Your task to perform on an android device: Add "razer blackwidow" to the cart on target, then select checkout. Image 0: 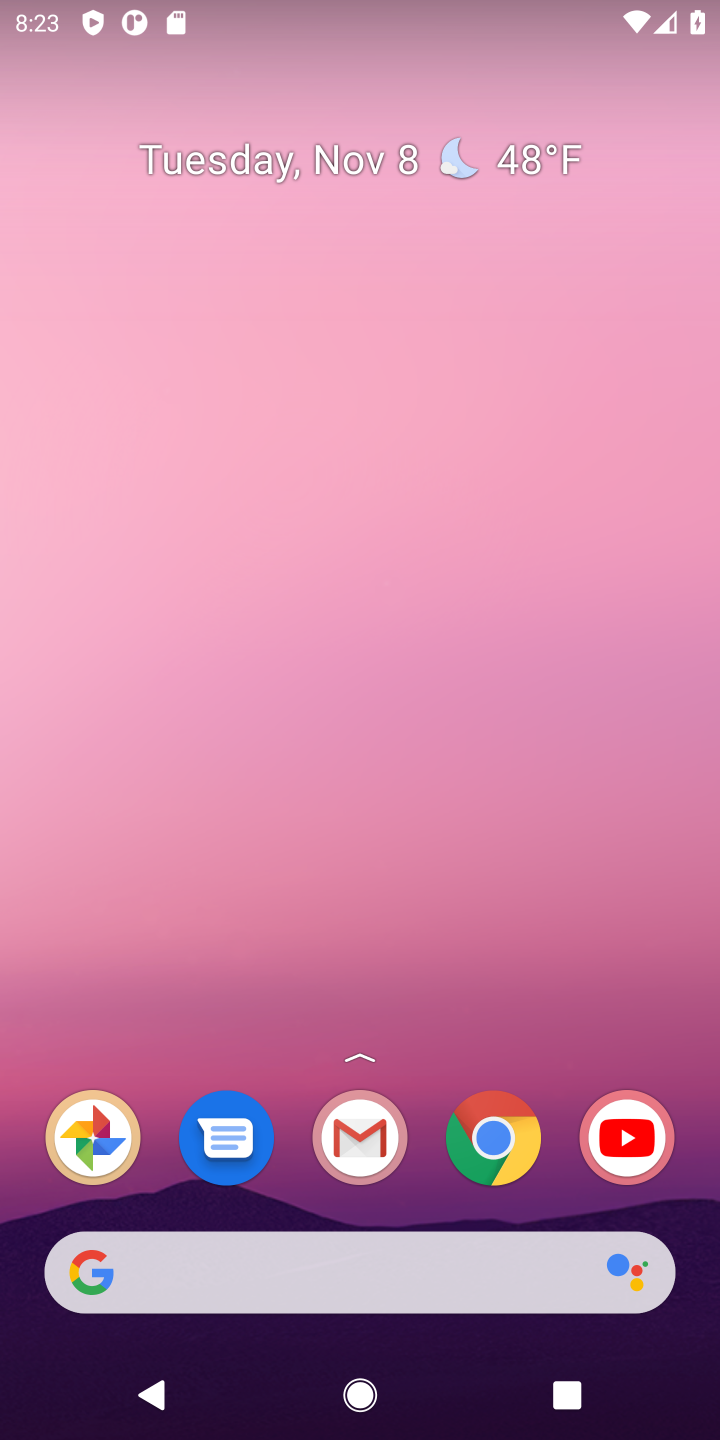
Step 0: click (491, 1116)
Your task to perform on an android device: Add "razer blackwidow" to the cart on target, then select checkout. Image 1: 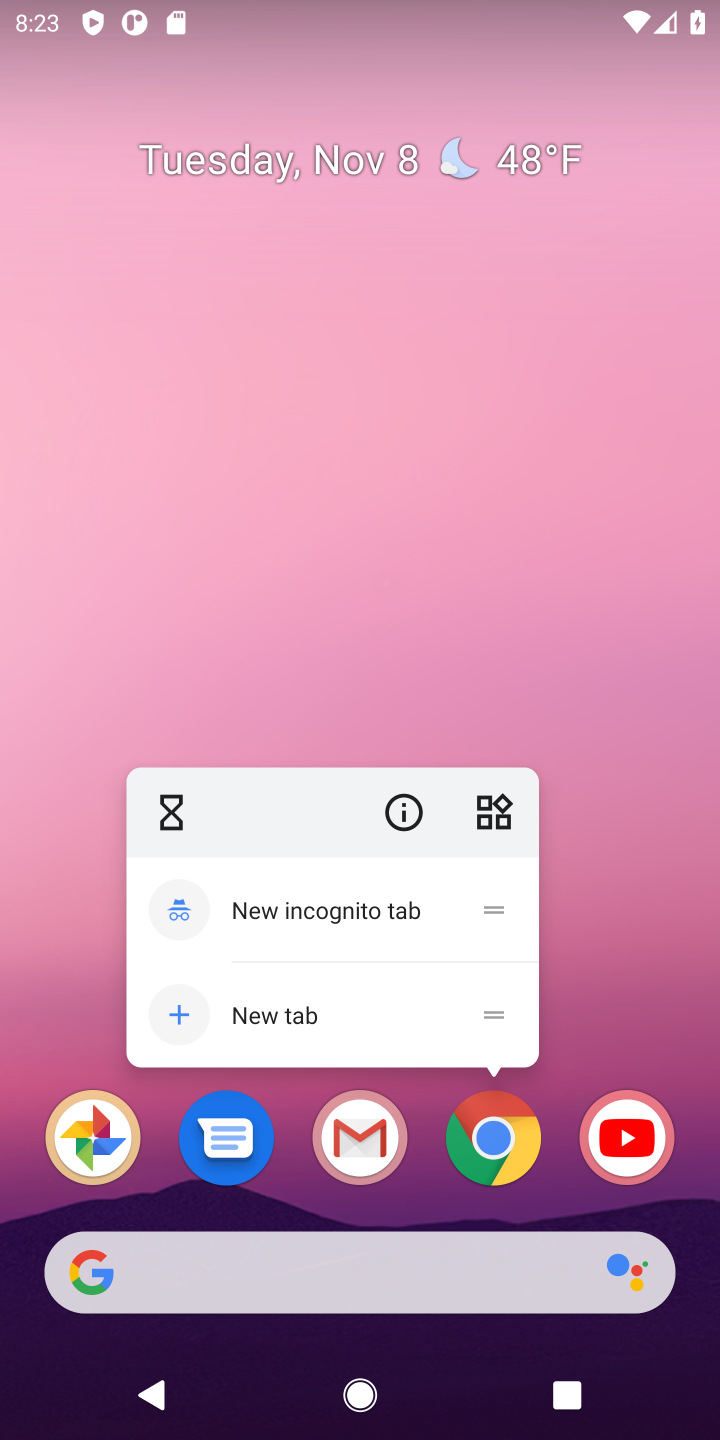
Step 1: click (481, 1136)
Your task to perform on an android device: Add "razer blackwidow" to the cart on target, then select checkout. Image 2: 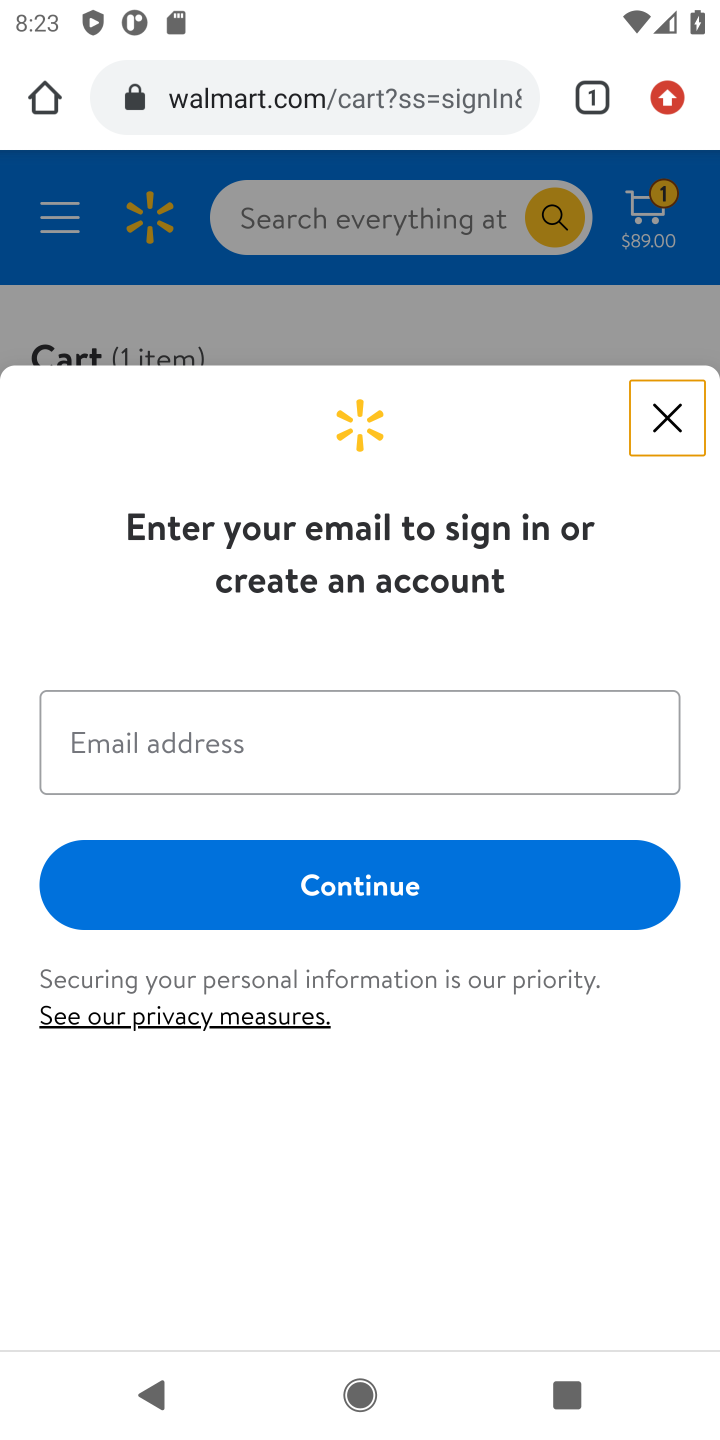
Step 2: click (384, 80)
Your task to perform on an android device: Add "razer blackwidow" to the cart on target, then select checkout. Image 3: 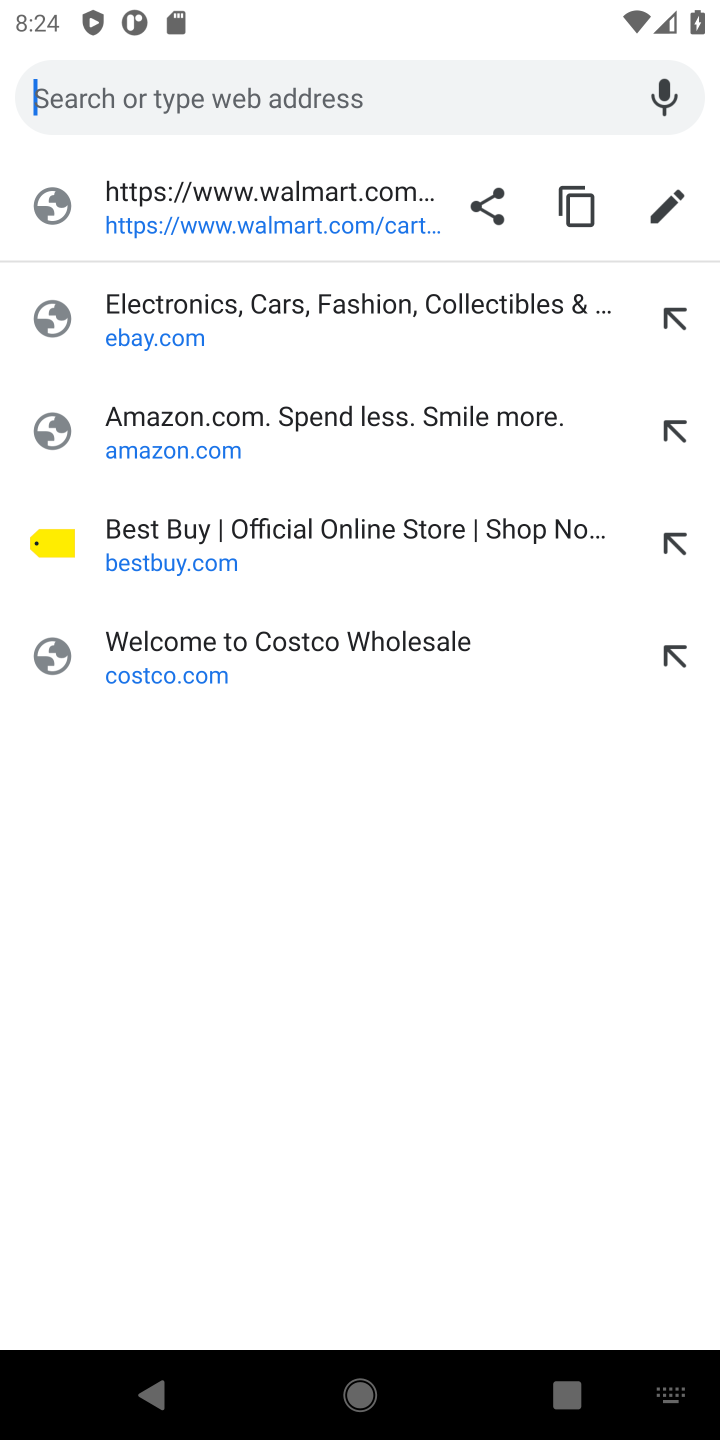
Step 3: type "target"
Your task to perform on an android device: Add "razer blackwidow" to the cart on target, then select checkout. Image 4: 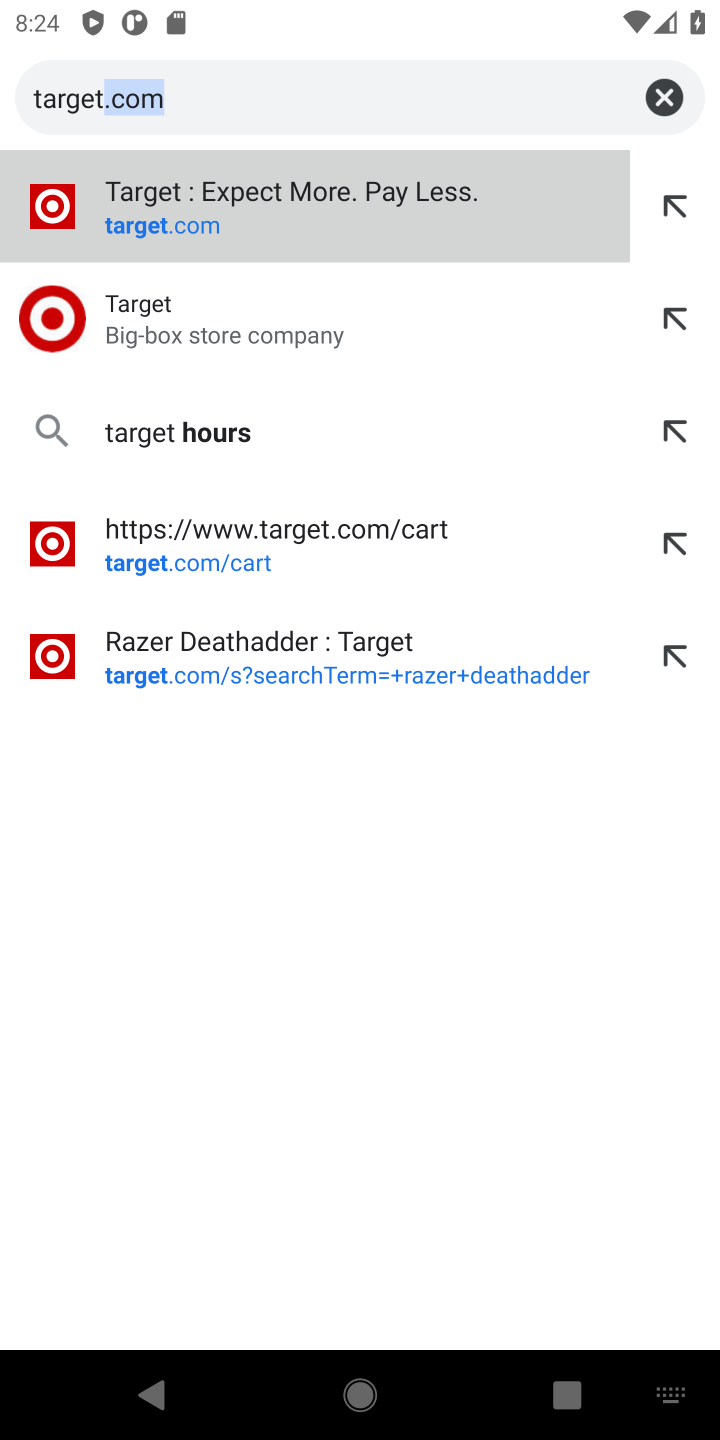
Step 4: press enter
Your task to perform on an android device: Add "razer blackwidow" to the cart on target, then select checkout. Image 5: 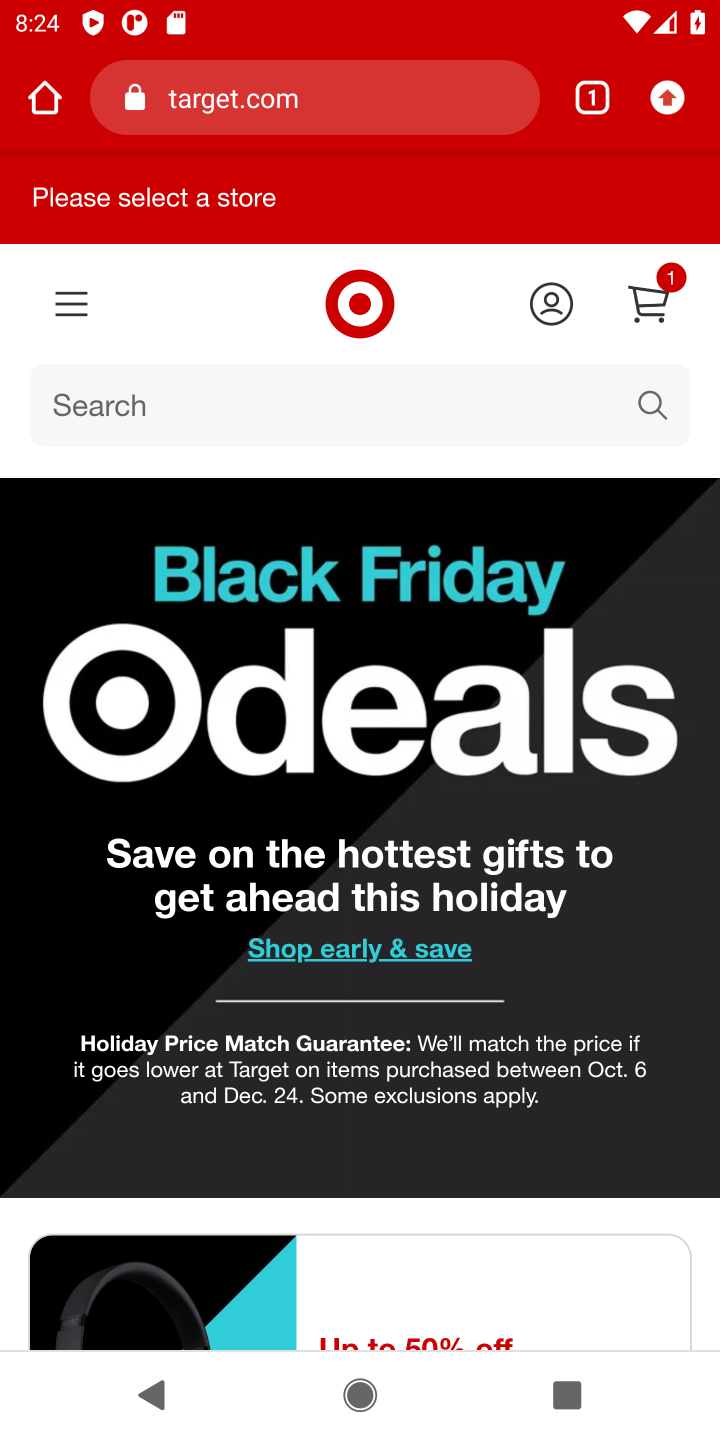
Step 5: click (138, 396)
Your task to perform on an android device: Add "razer blackwidow" to the cart on target, then select checkout. Image 6: 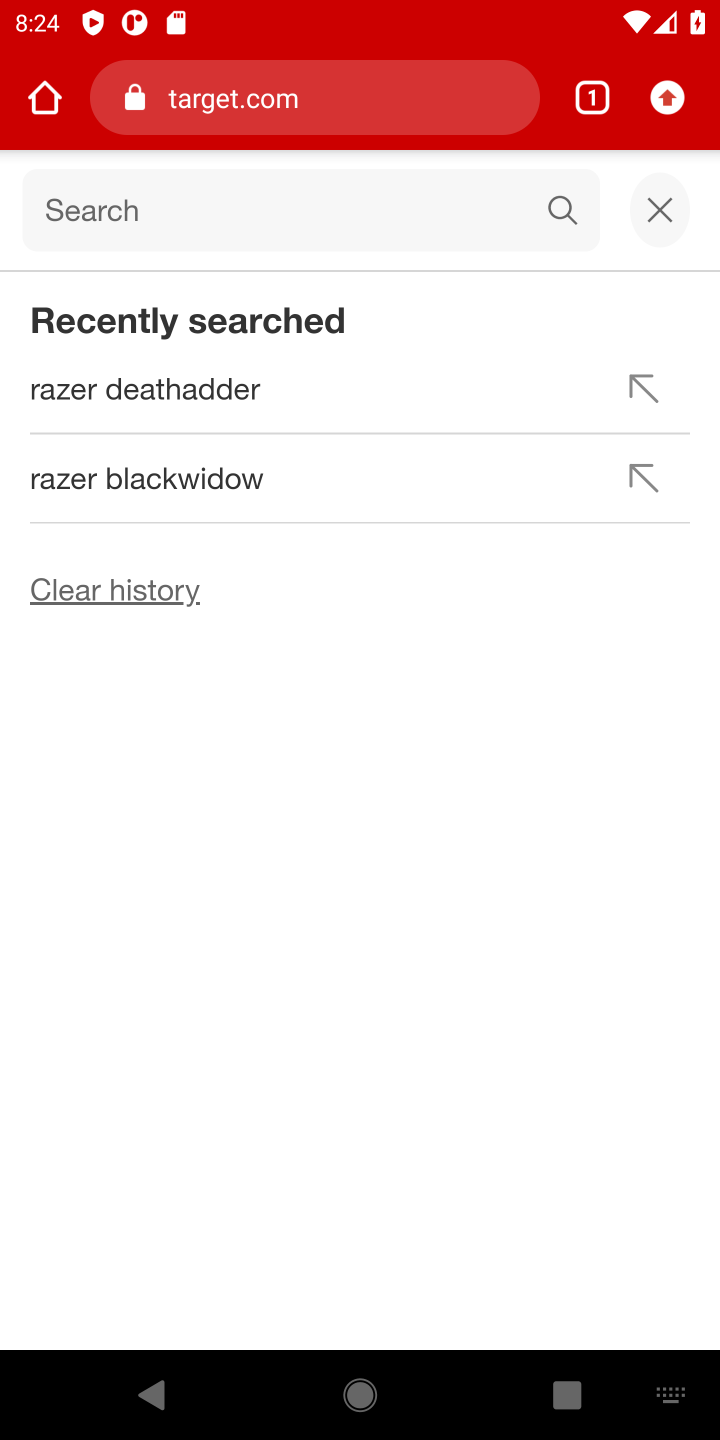
Step 6: type "razer blackwidow"
Your task to perform on an android device: Add "razer blackwidow" to the cart on target, then select checkout. Image 7: 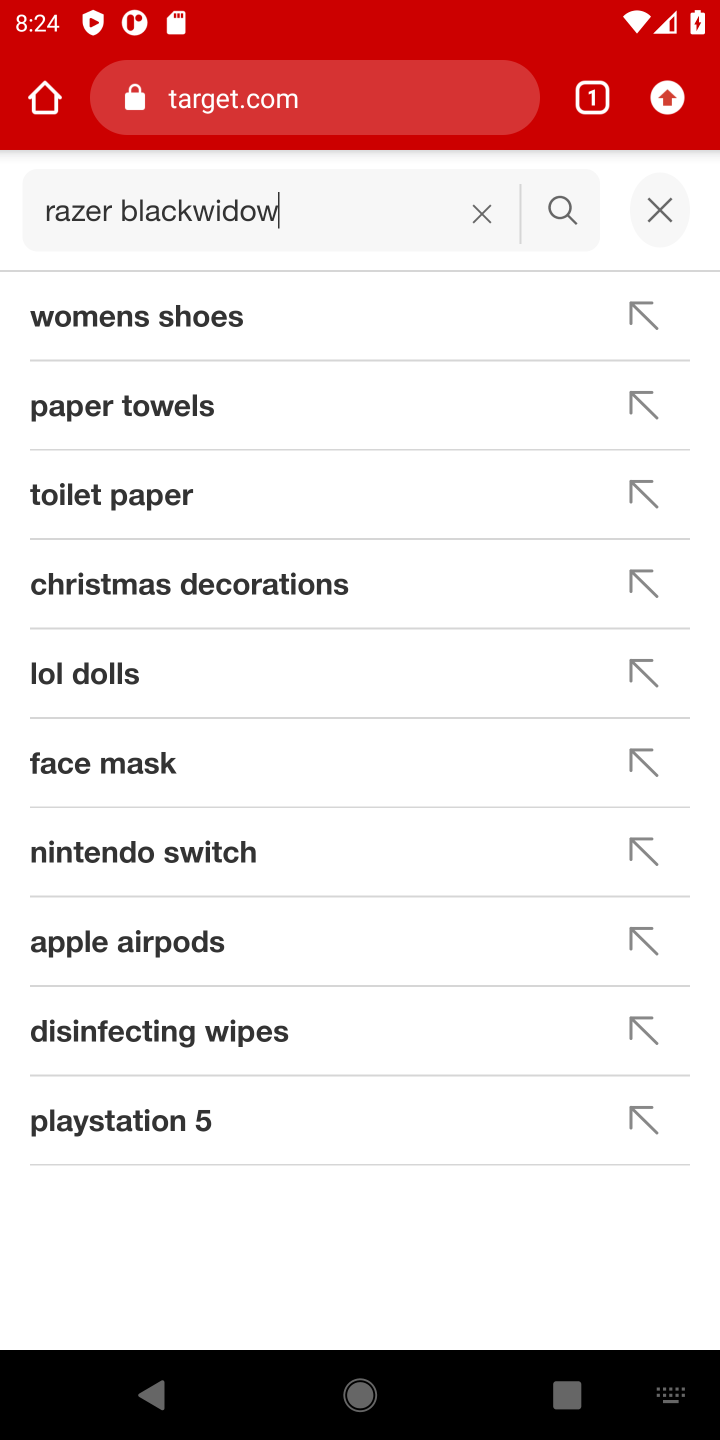
Step 7: press enter
Your task to perform on an android device: Add "razer blackwidow" to the cart on target, then select checkout. Image 8: 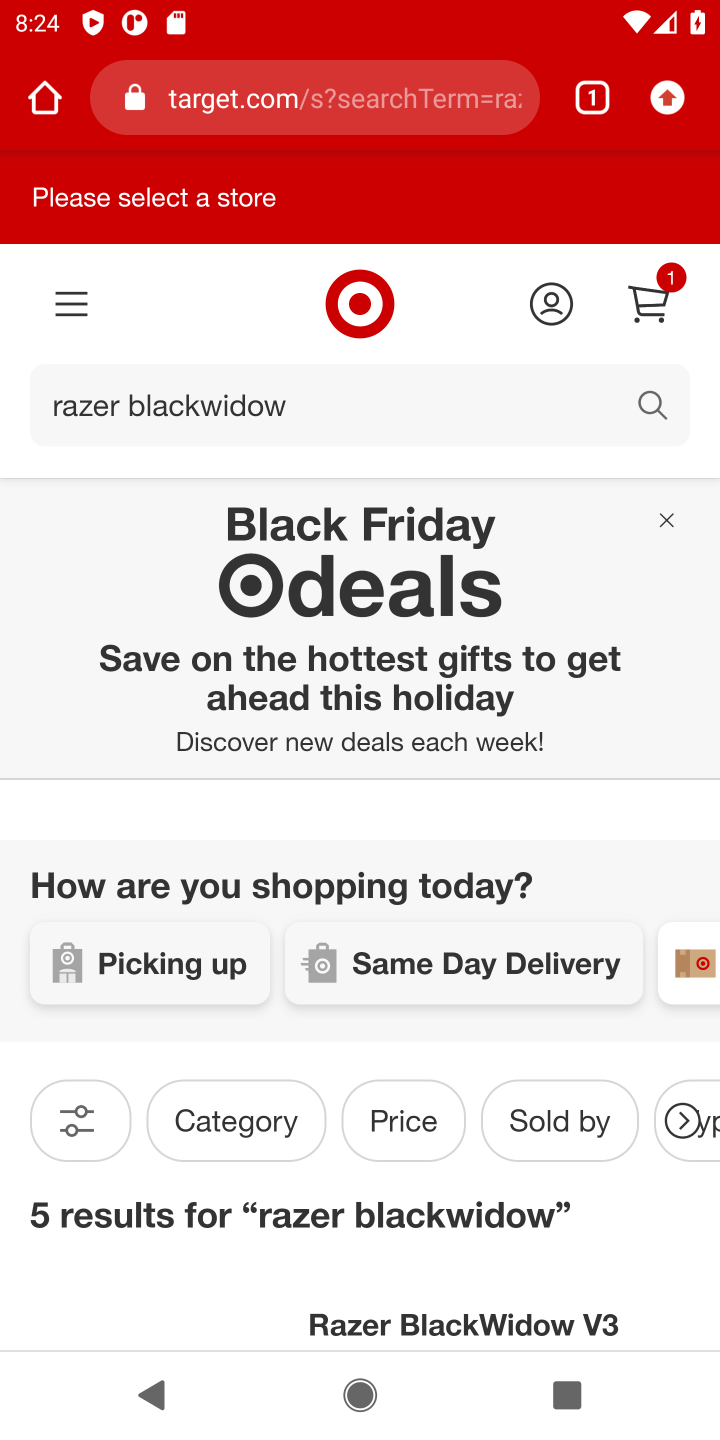
Step 8: drag from (323, 1049) to (447, 549)
Your task to perform on an android device: Add "razer blackwidow" to the cart on target, then select checkout. Image 9: 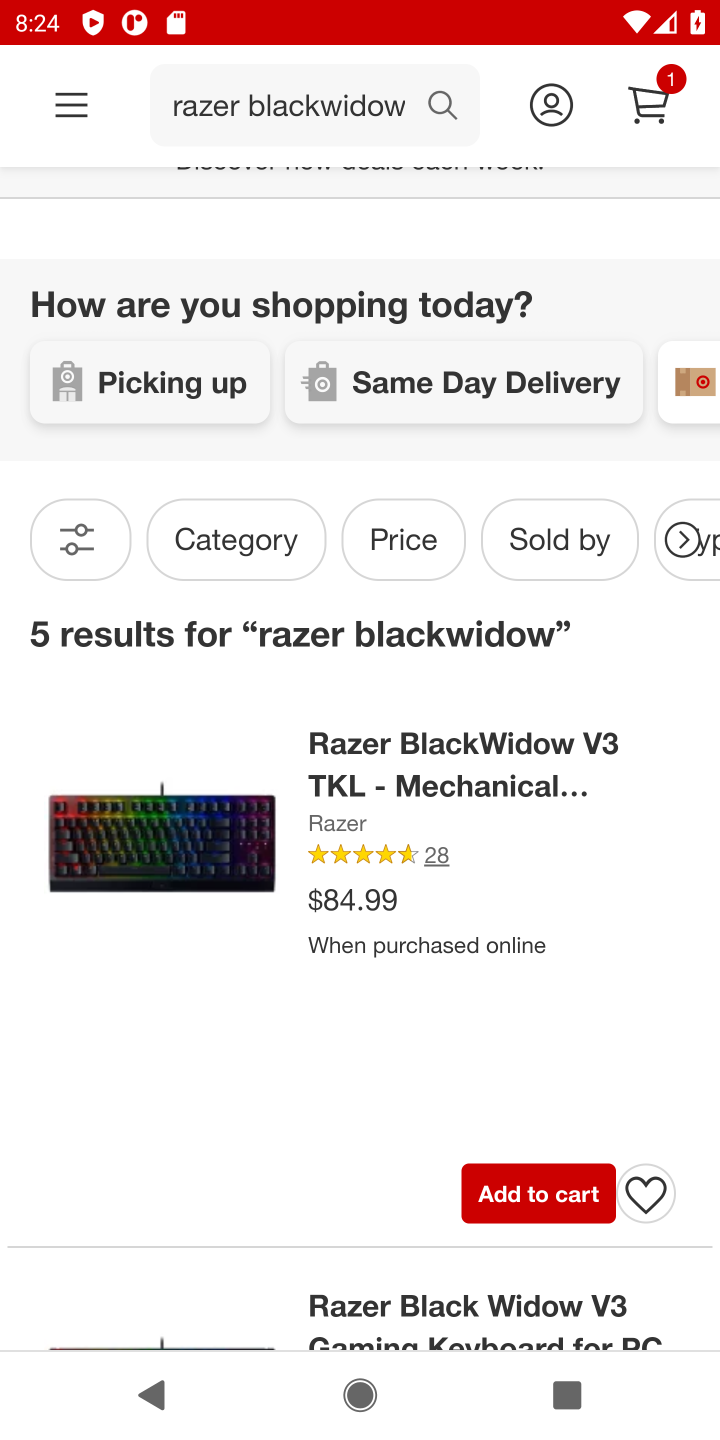
Step 9: click (574, 1197)
Your task to perform on an android device: Add "razer blackwidow" to the cart on target, then select checkout. Image 10: 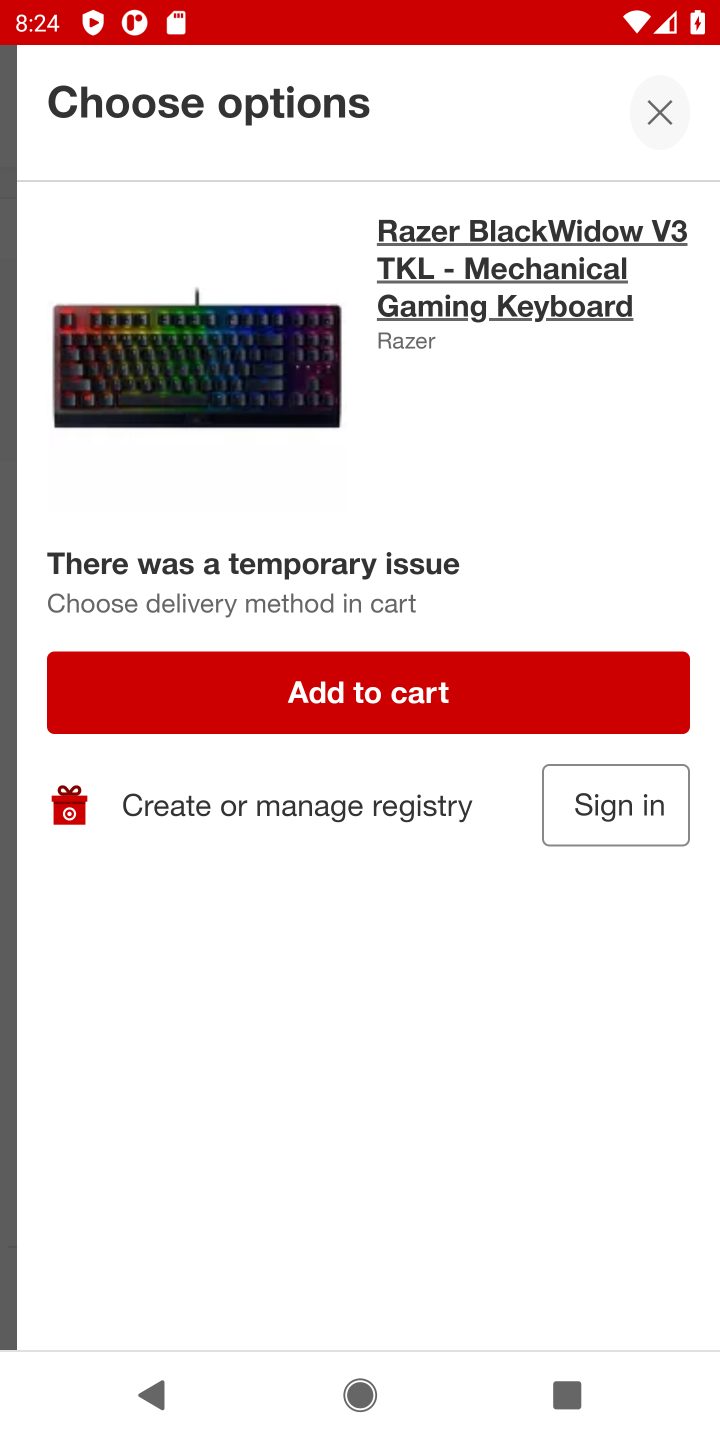
Step 10: click (370, 690)
Your task to perform on an android device: Add "razer blackwidow" to the cart on target, then select checkout. Image 11: 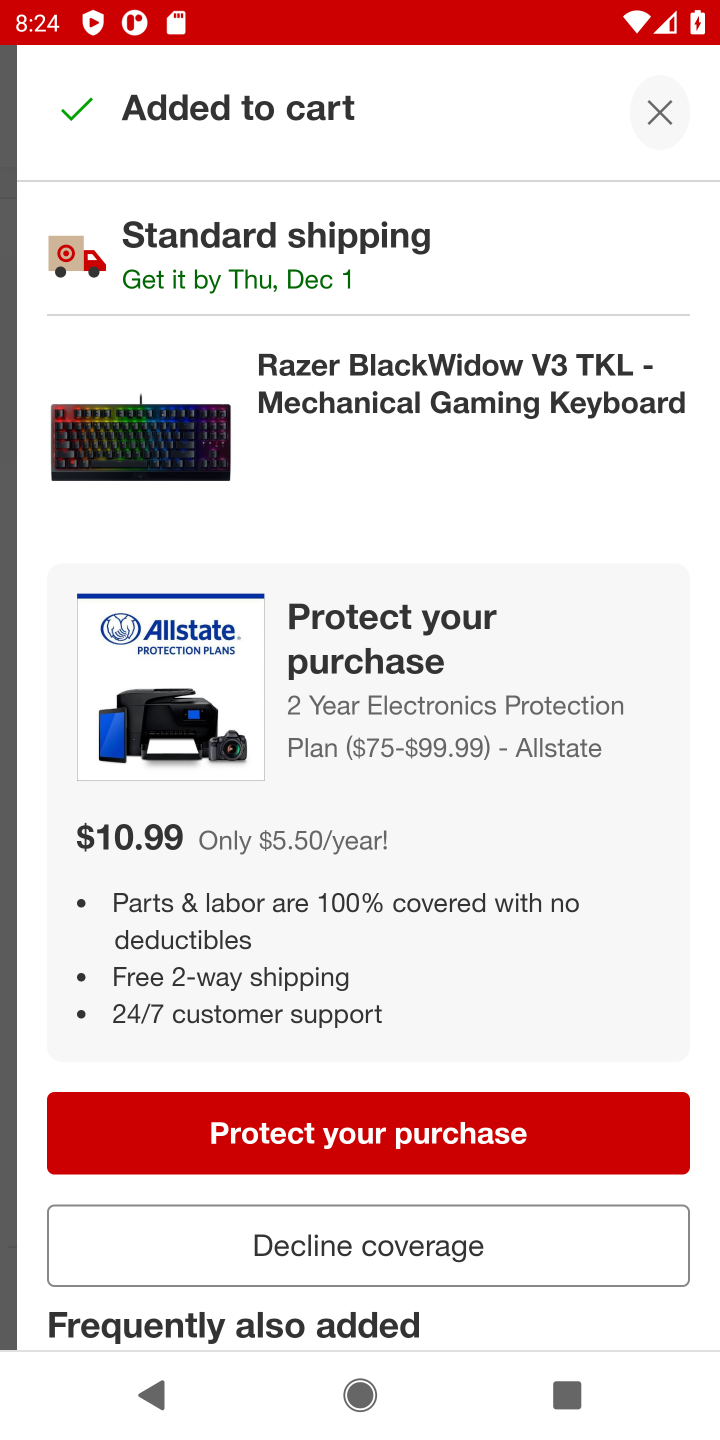
Step 11: click (664, 94)
Your task to perform on an android device: Add "razer blackwidow" to the cart on target, then select checkout. Image 12: 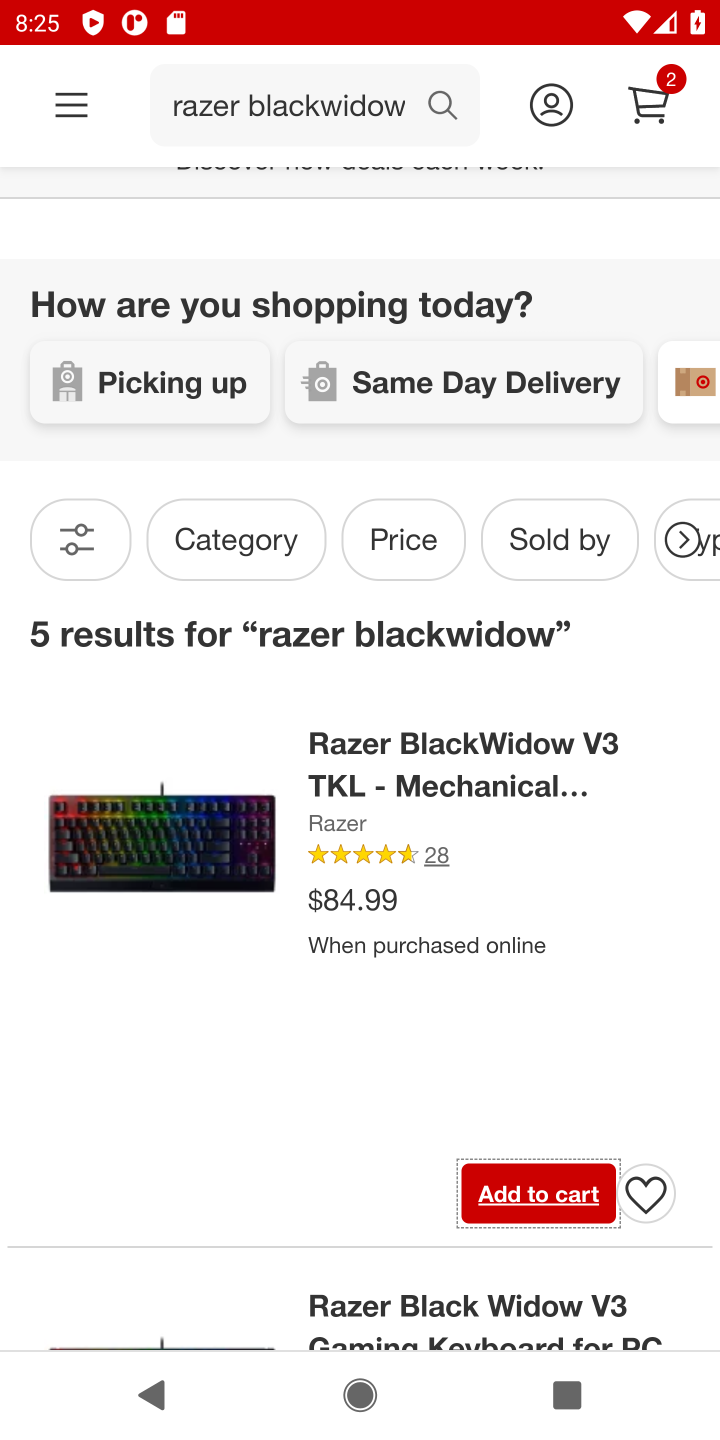
Step 12: click (637, 79)
Your task to perform on an android device: Add "razer blackwidow" to the cart on target, then select checkout. Image 13: 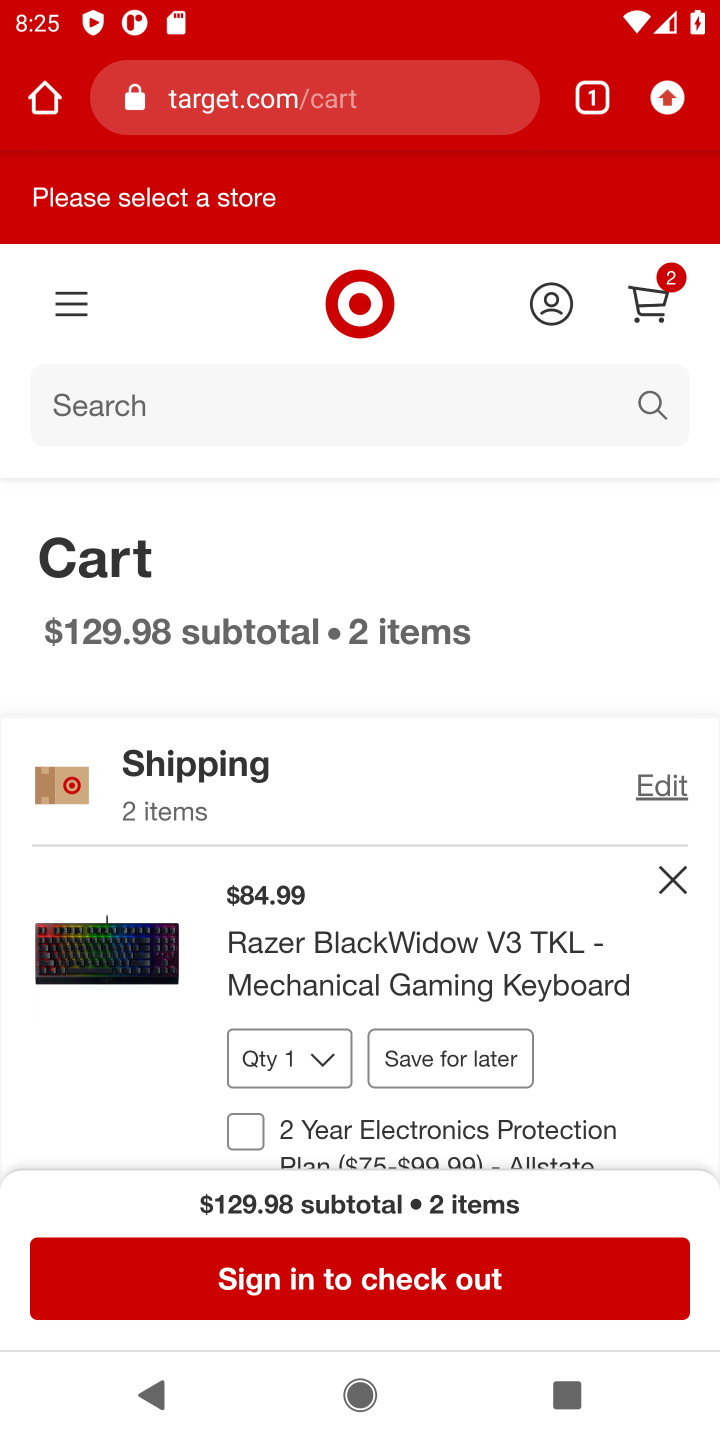
Step 13: drag from (148, 1047) to (506, 106)
Your task to perform on an android device: Add "razer blackwidow" to the cart on target, then select checkout. Image 14: 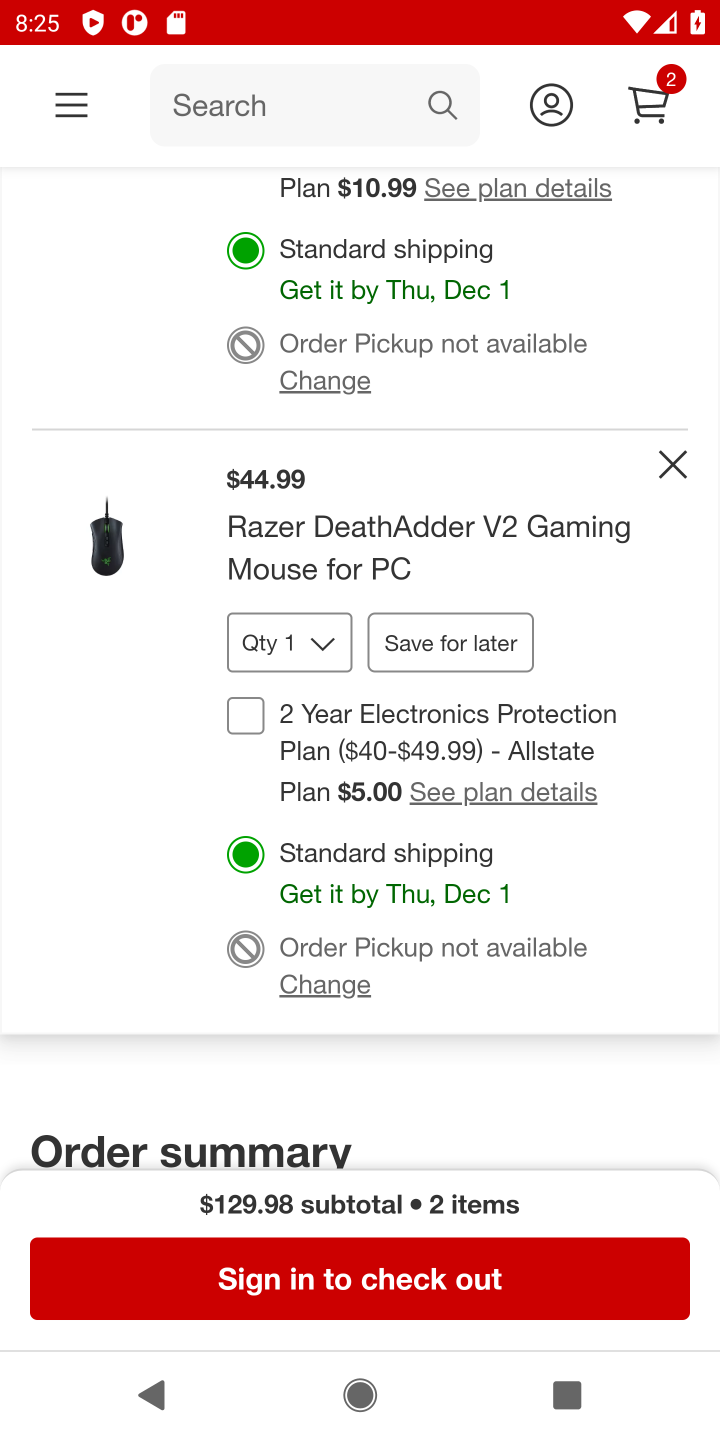
Step 14: click (673, 445)
Your task to perform on an android device: Add "razer blackwidow" to the cart on target, then select checkout. Image 15: 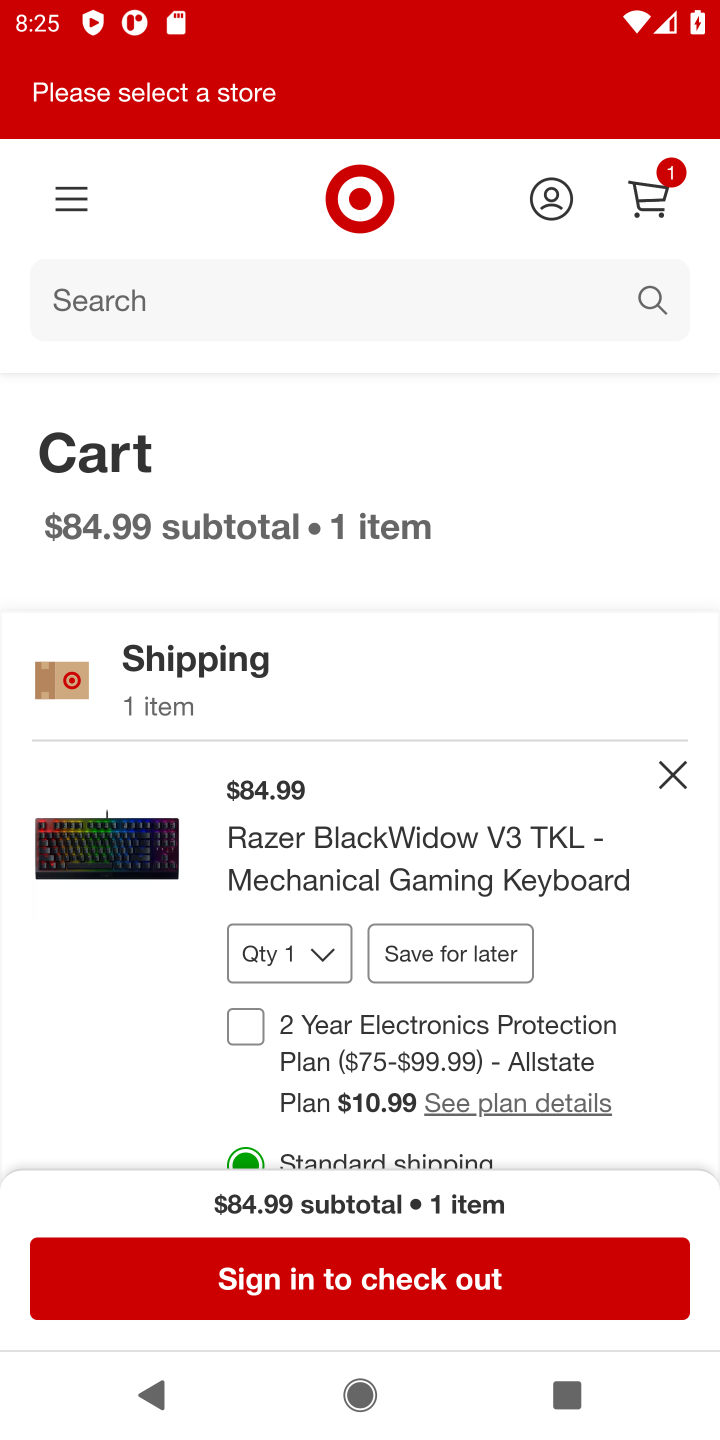
Step 15: click (368, 1289)
Your task to perform on an android device: Add "razer blackwidow" to the cart on target, then select checkout. Image 16: 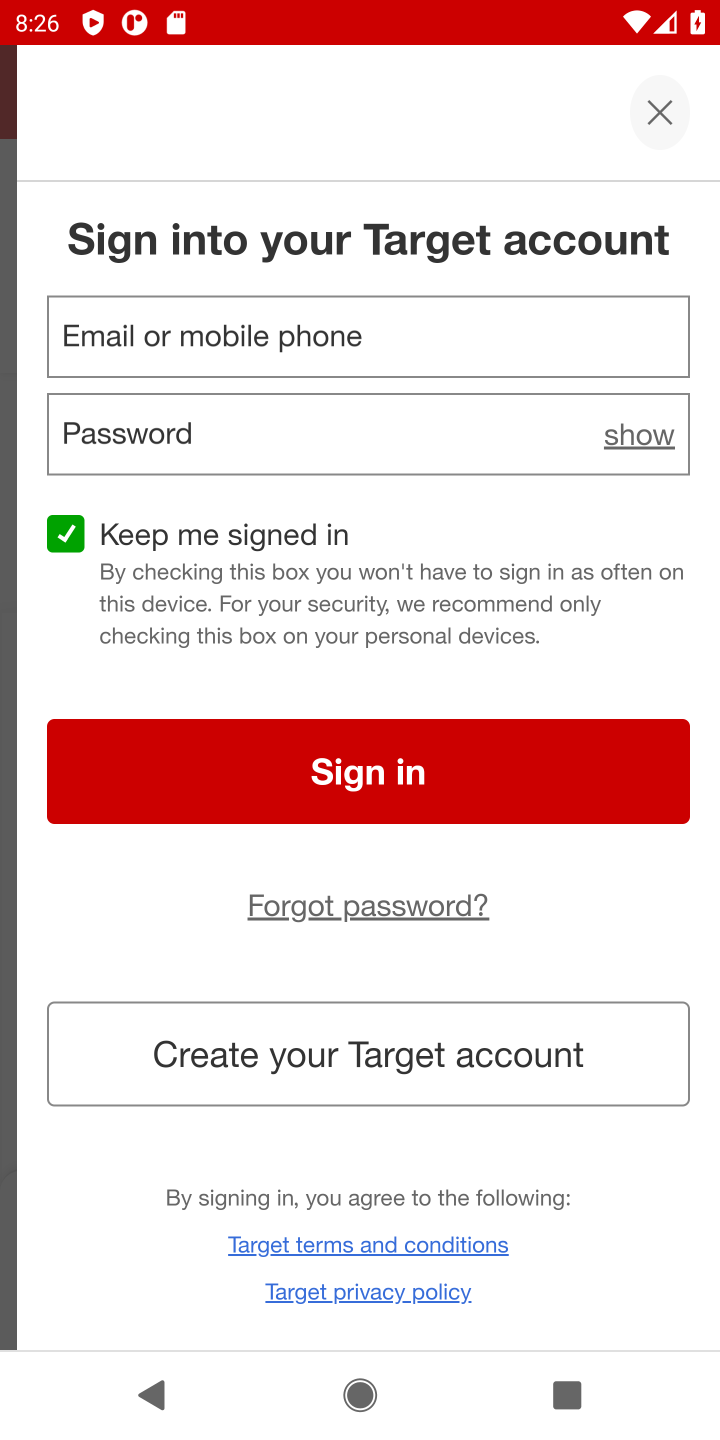
Step 16: task complete